Your task to perform on an android device: Open the map Image 0: 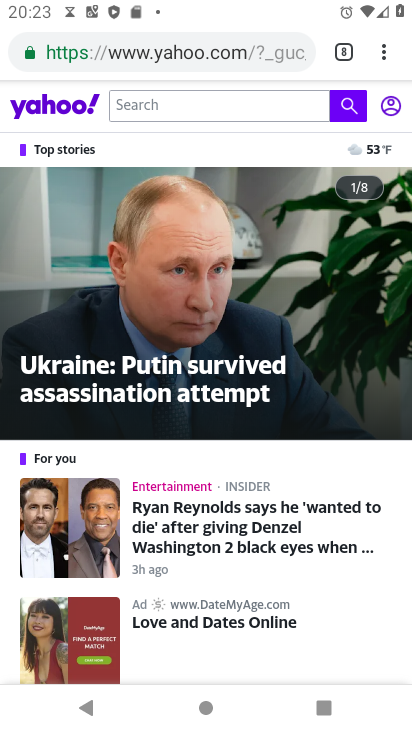
Step 0: press home button
Your task to perform on an android device: Open the map Image 1: 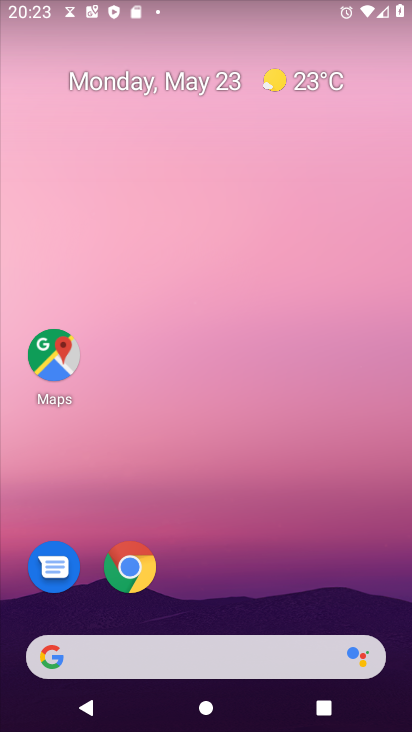
Step 1: click (49, 350)
Your task to perform on an android device: Open the map Image 2: 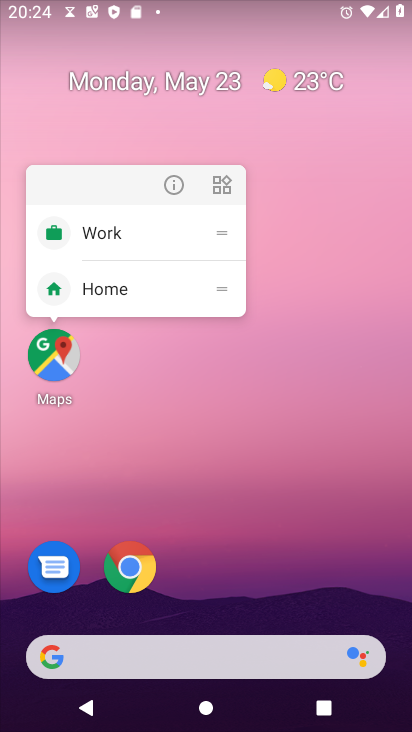
Step 2: click (313, 542)
Your task to perform on an android device: Open the map Image 3: 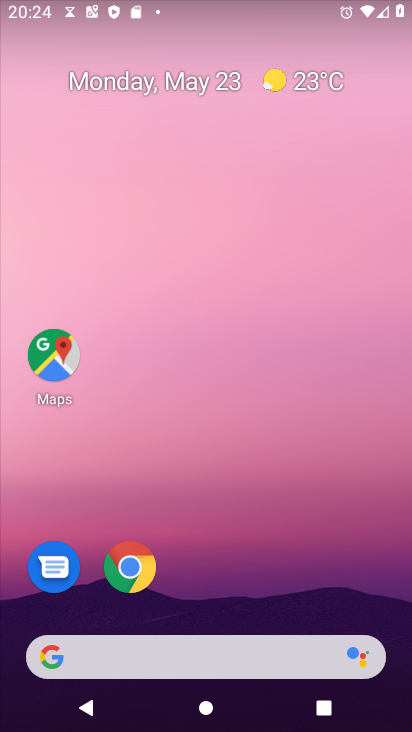
Step 3: click (61, 359)
Your task to perform on an android device: Open the map Image 4: 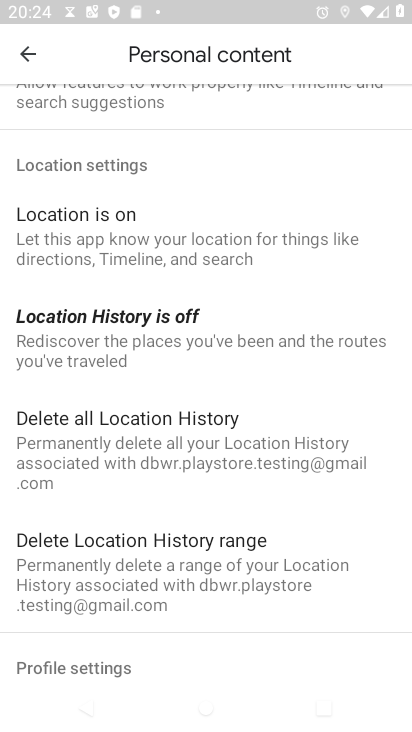
Step 4: click (34, 54)
Your task to perform on an android device: Open the map Image 5: 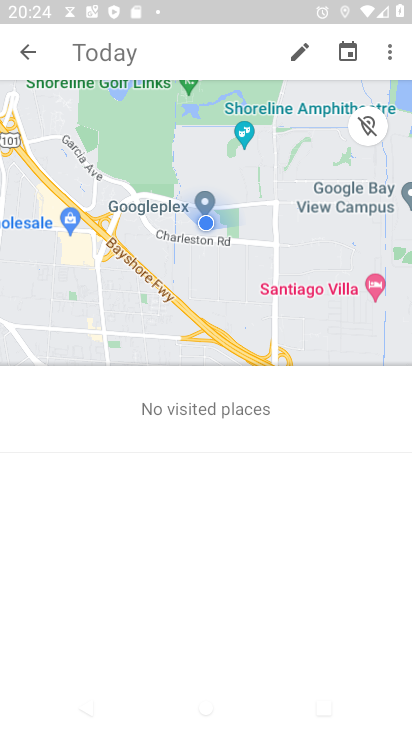
Step 5: click (20, 62)
Your task to perform on an android device: Open the map Image 6: 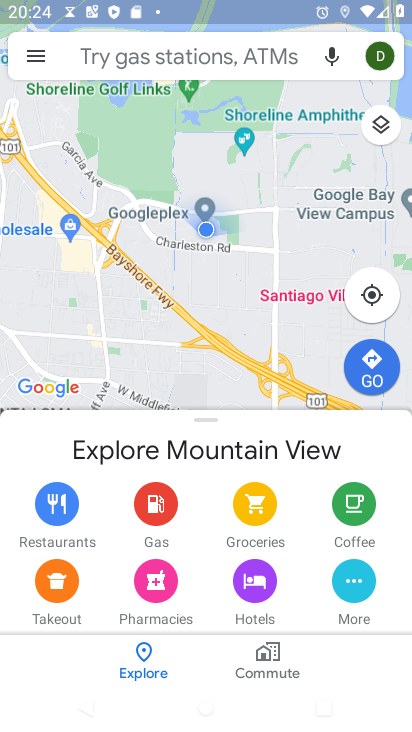
Step 6: task complete